Your task to perform on an android device: check data usage Image 0: 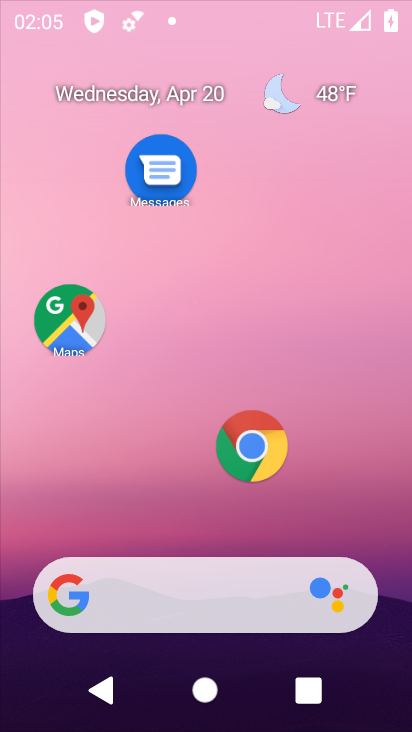
Step 0: click (274, 29)
Your task to perform on an android device: check data usage Image 1: 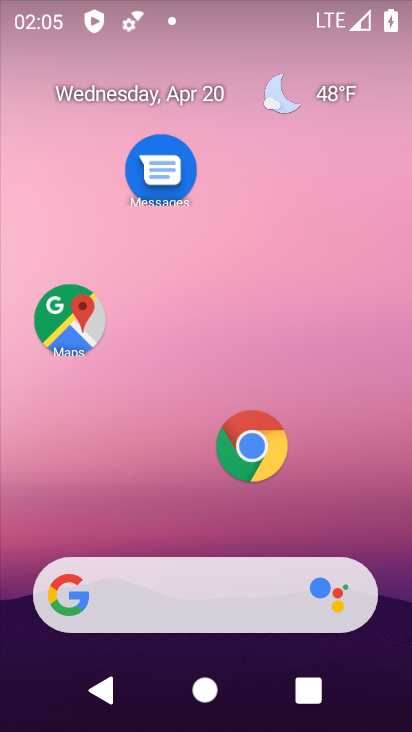
Step 1: drag from (209, 522) to (236, 117)
Your task to perform on an android device: check data usage Image 2: 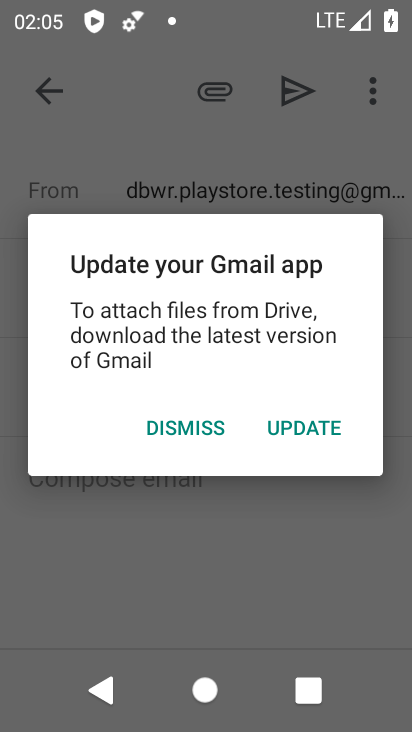
Step 2: press home button
Your task to perform on an android device: check data usage Image 3: 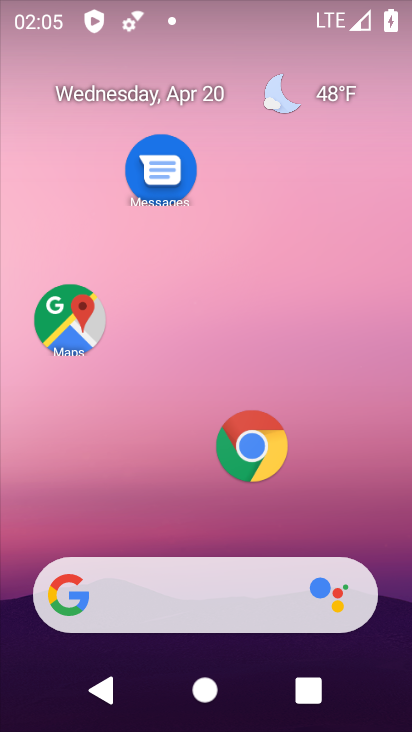
Step 3: drag from (206, 489) to (269, 43)
Your task to perform on an android device: check data usage Image 4: 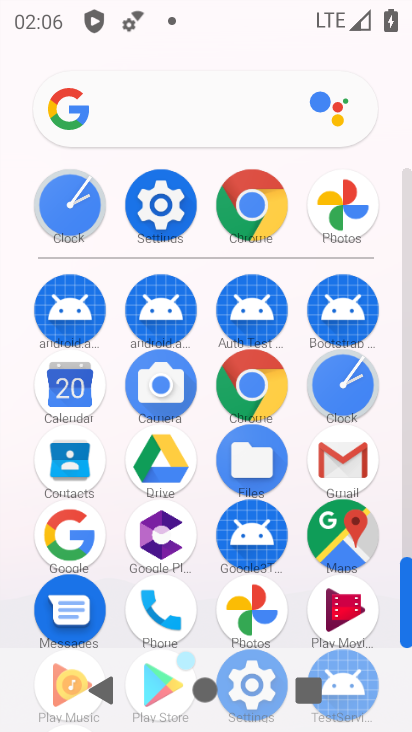
Step 4: click (145, 200)
Your task to perform on an android device: check data usage Image 5: 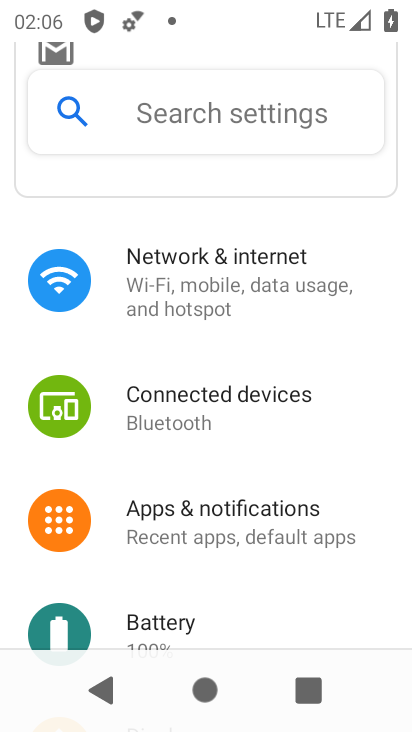
Step 5: click (220, 294)
Your task to perform on an android device: check data usage Image 6: 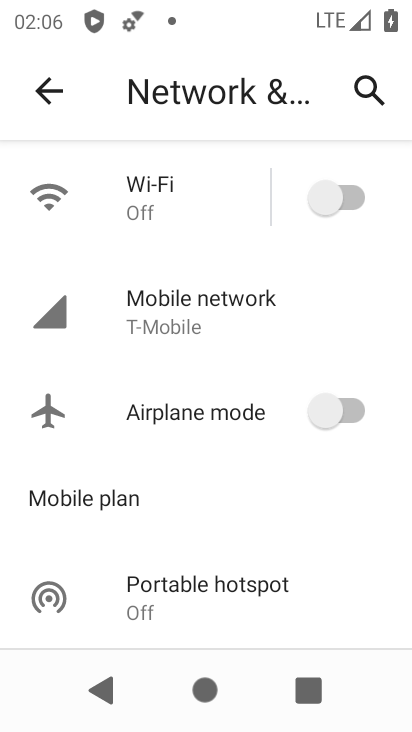
Step 6: click (224, 299)
Your task to perform on an android device: check data usage Image 7: 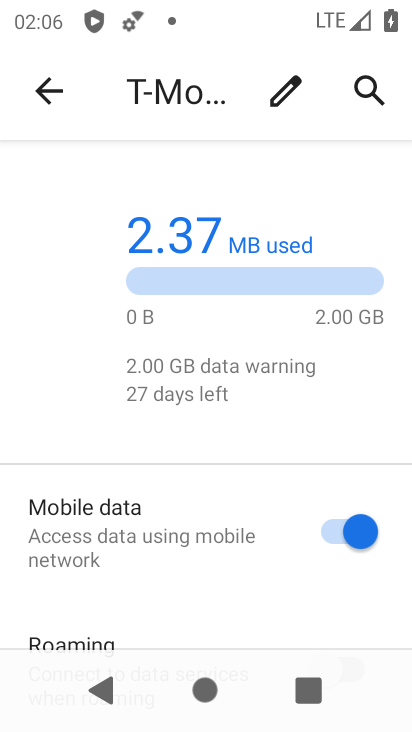
Step 7: drag from (145, 588) to (192, 234)
Your task to perform on an android device: check data usage Image 8: 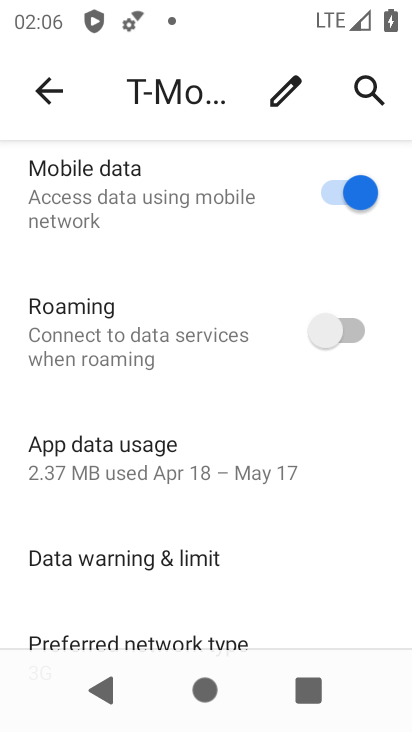
Step 8: click (182, 462)
Your task to perform on an android device: check data usage Image 9: 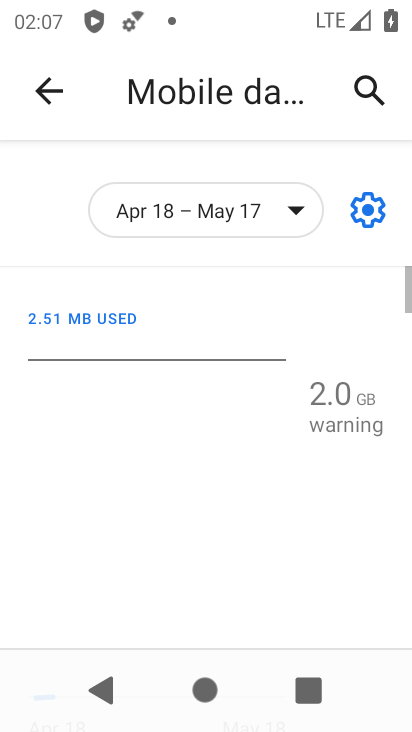
Step 9: task complete